Your task to perform on an android device: Open Yahoo.com Image 0: 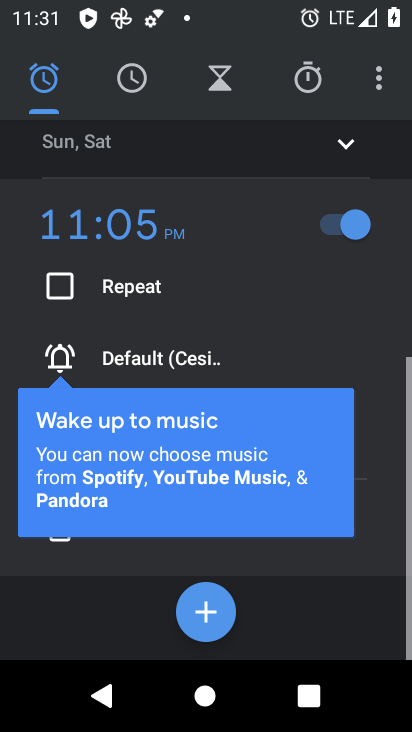
Step 0: press home button
Your task to perform on an android device: Open Yahoo.com Image 1: 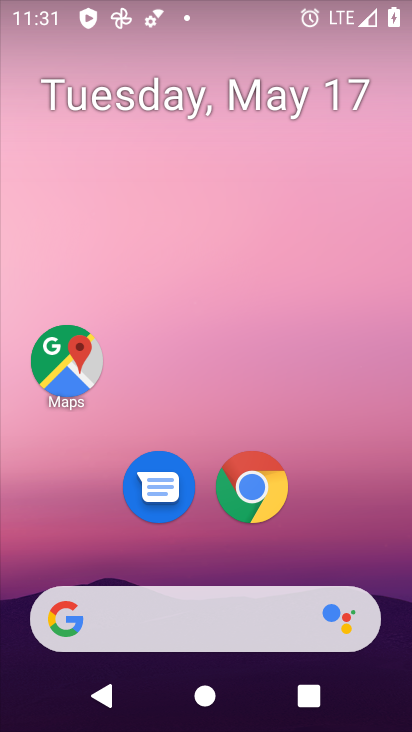
Step 1: click (254, 473)
Your task to perform on an android device: Open Yahoo.com Image 2: 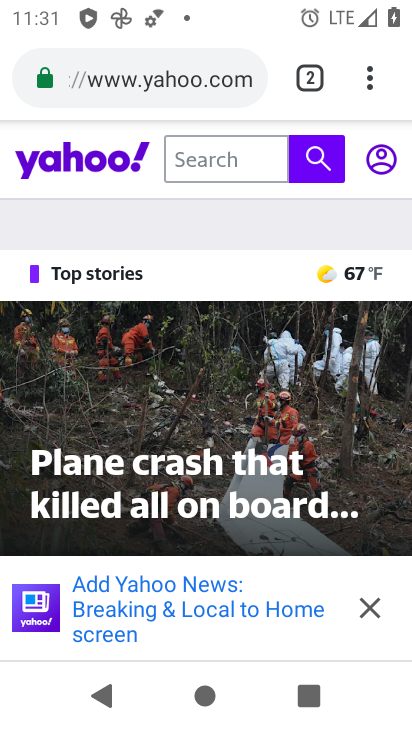
Step 2: task complete